Your task to perform on an android device: Show me popular videos on Youtube Image 0: 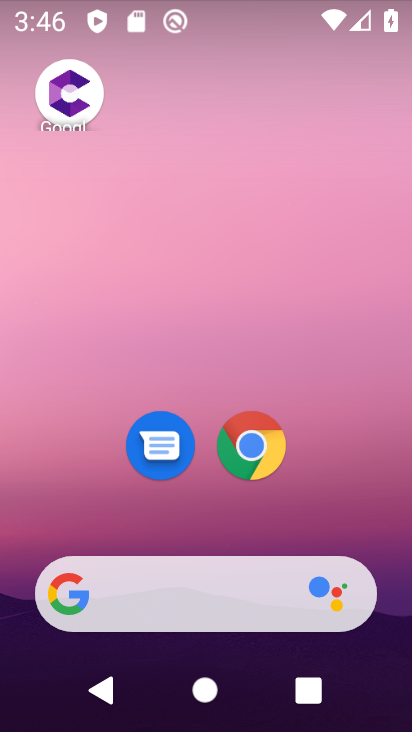
Step 0: drag from (218, 701) to (193, 159)
Your task to perform on an android device: Show me popular videos on Youtube Image 1: 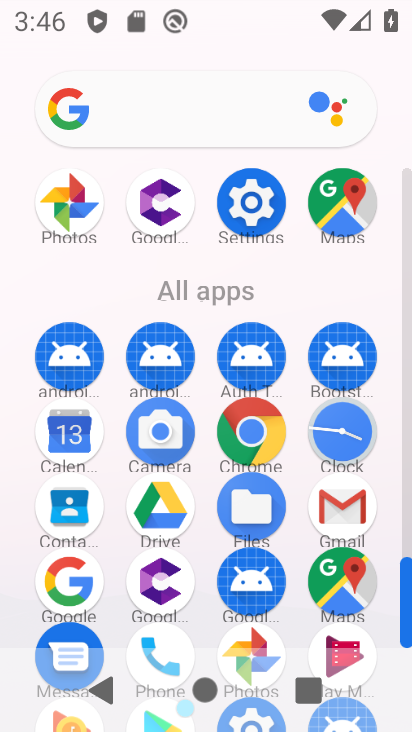
Step 1: drag from (289, 594) to (291, 261)
Your task to perform on an android device: Show me popular videos on Youtube Image 2: 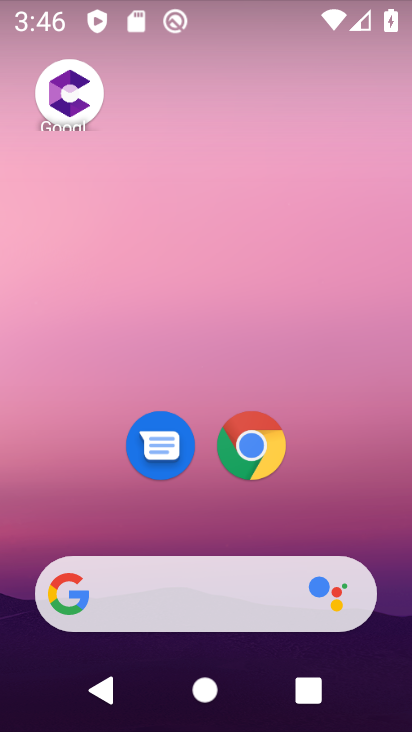
Step 2: drag from (216, 725) to (196, 134)
Your task to perform on an android device: Show me popular videos on Youtube Image 3: 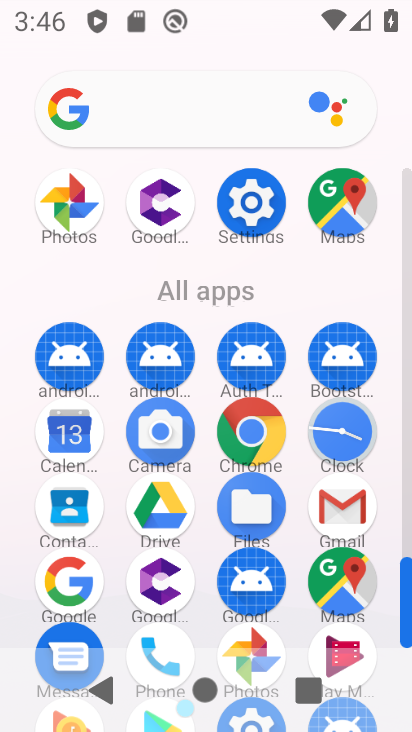
Step 3: drag from (302, 553) to (261, 184)
Your task to perform on an android device: Show me popular videos on Youtube Image 4: 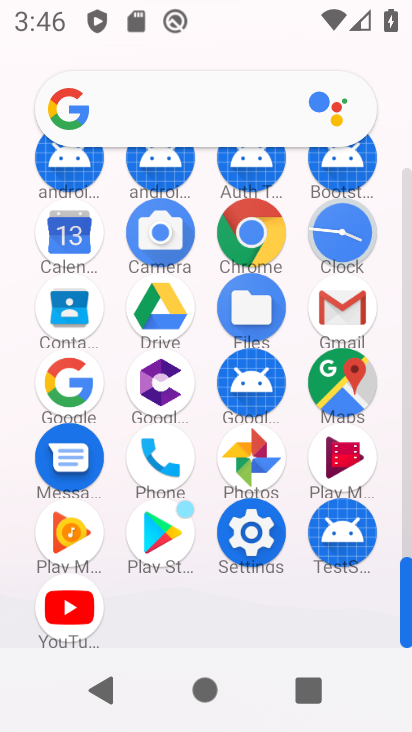
Step 4: click (62, 608)
Your task to perform on an android device: Show me popular videos on Youtube Image 5: 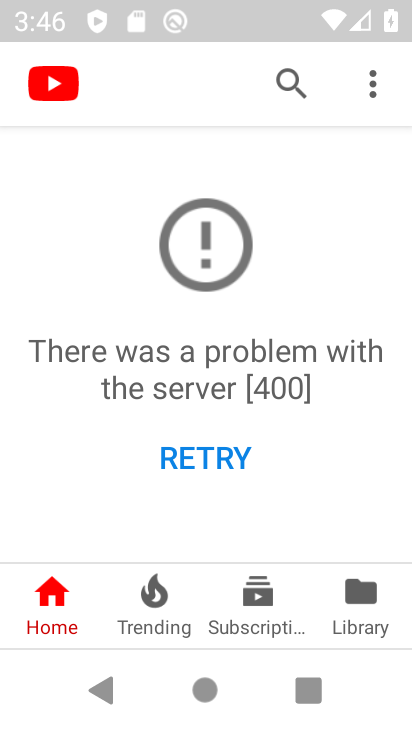
Step 5: task complete